Your task to perform on an android device: Open Amazon Image 0: 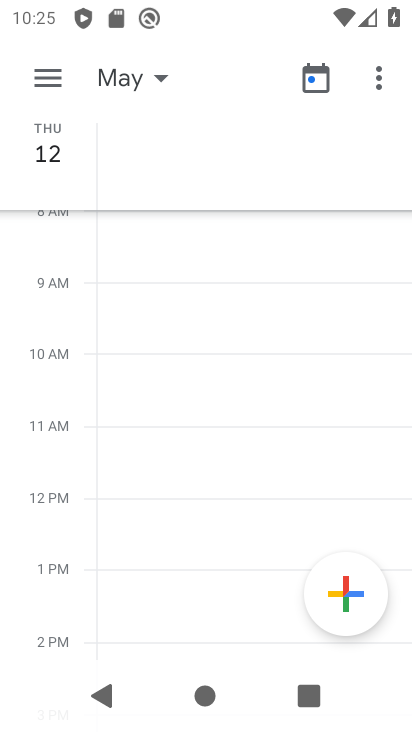
Step 0: press back button
Your task to perform on an android device: Open Amazon Image 1: 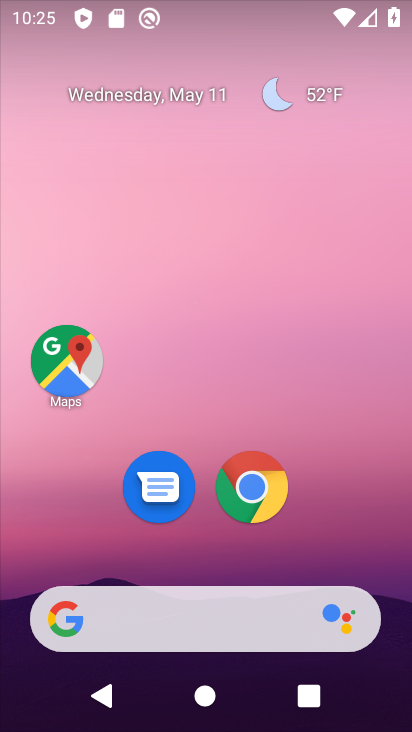
Step 1: drag from (329, 502) to (265, 9)
Your task to perform on an android device: Open Amazon Image 2: 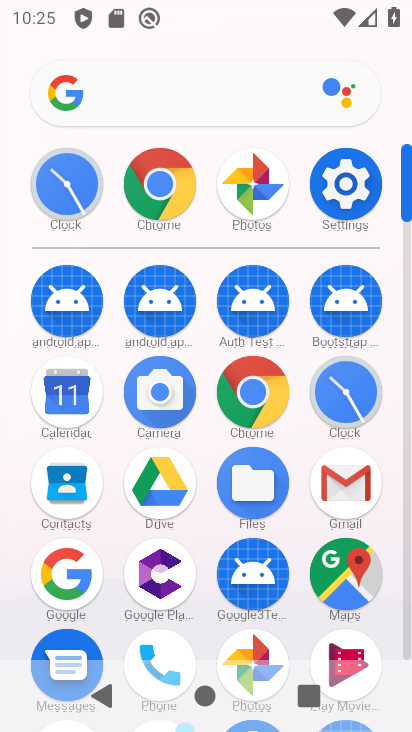
Step 2: click (161, 182)
Your task to perform on an android device: Open Amazon Image 3: 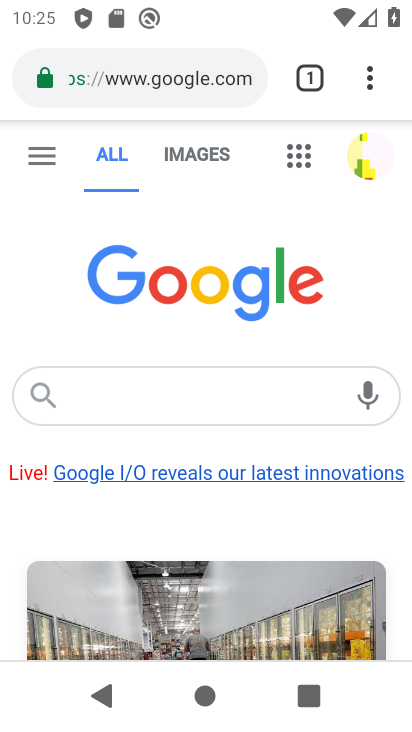
Step 3: click (169, 74)
Your task to perform on an android device: Open Amazon Image 4: 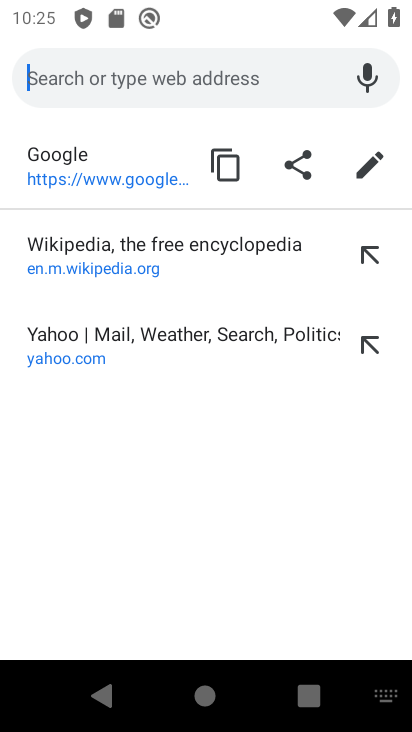
Step 4: type "Amazon"
Your task to perform on an android device: Open Amazon Image 5: 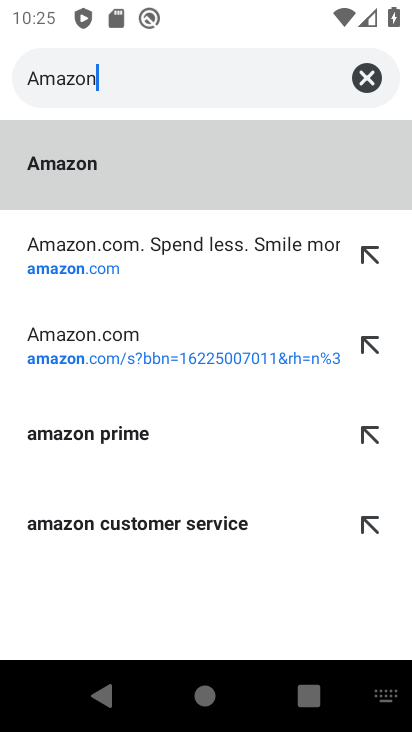
Step 5: type ""
Your task to perform on an android device: Open Amazon Image 6: 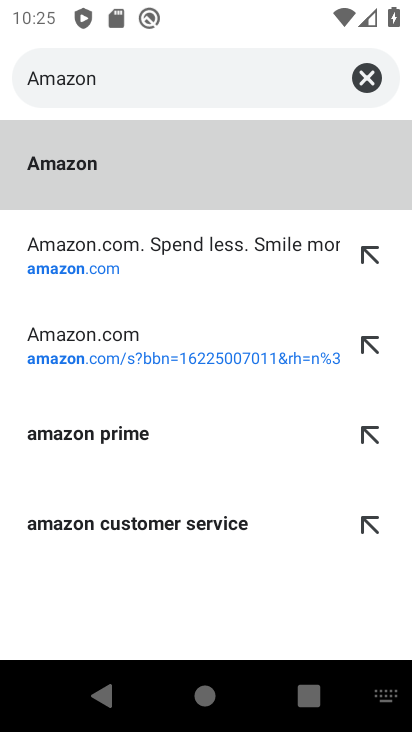
Step 6: click (111, 260)
Your task to perform on an android device: Open Amazon Image 7: 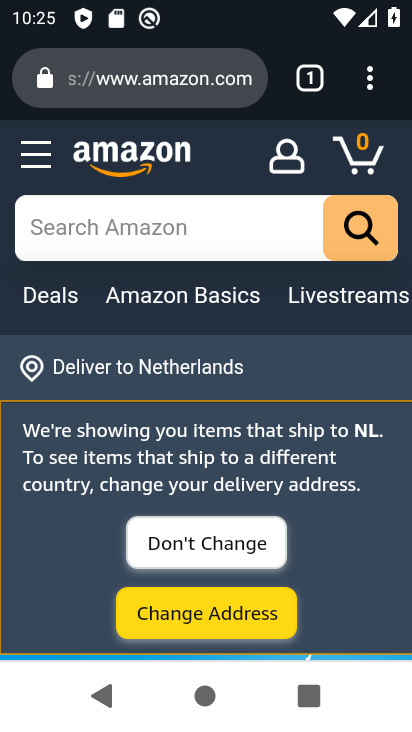
Step 7: task complete